Your task to perform on an android device: clear history in the chrome app Image 0: 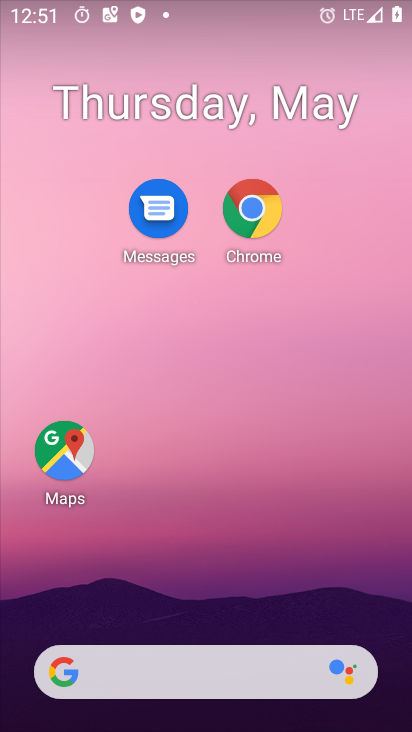
Step 0: drag from (189, 480) to (201, 18)
Your task to perform on an android device: clear history in the chrome app Image 1: 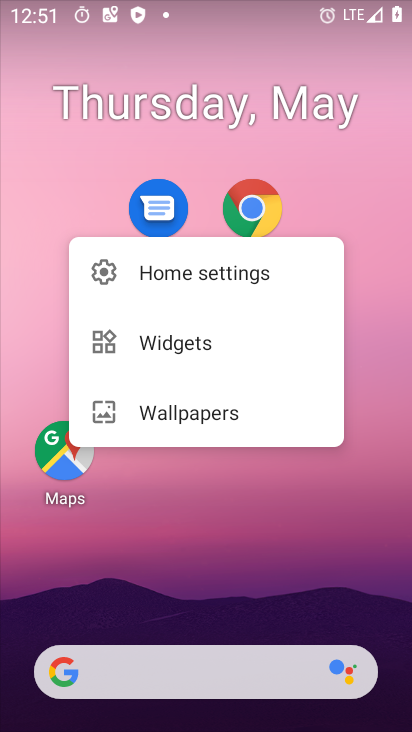
Step 1: click (196, 592)
Your task to perform on an android device: clear history in the chrome app Image 2: 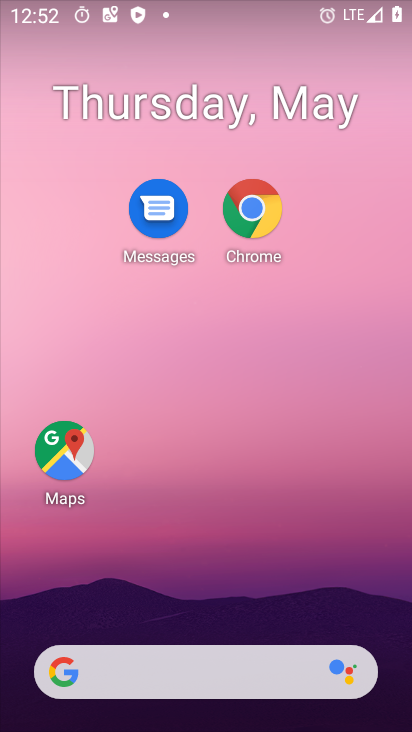
Step 2: click (245, 223)
Your task to perform on an android device: clear history in the chrome app Image 3: 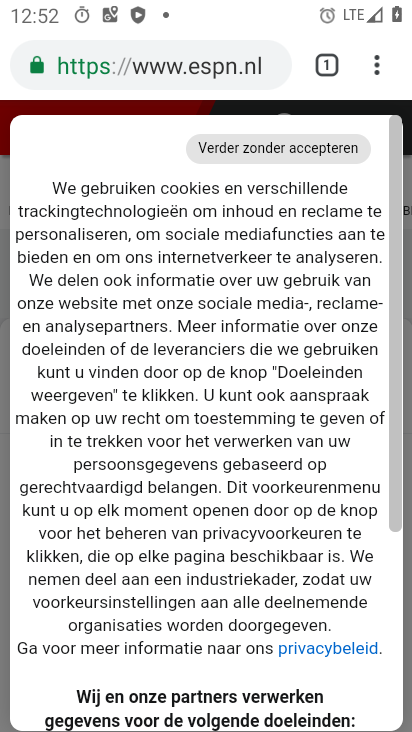
Step 3: click (375, 70)
Your task to perform on an android device: clear history in the chrome app Image 4: 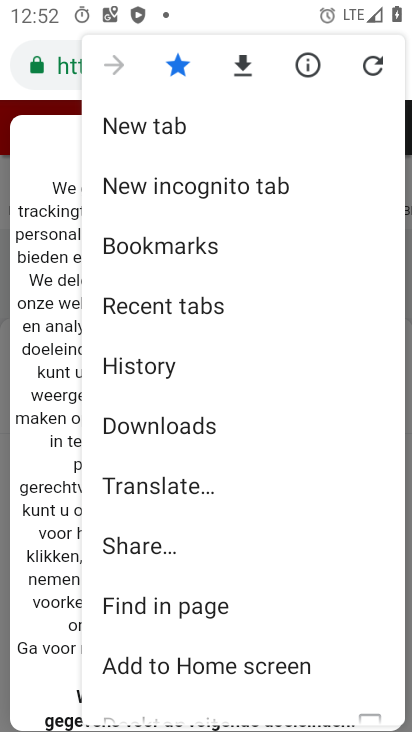
Step 4: drag from (191, 646) to (222, 287)
Your task to perform on an android device: clear history in the chrome app Image 5: 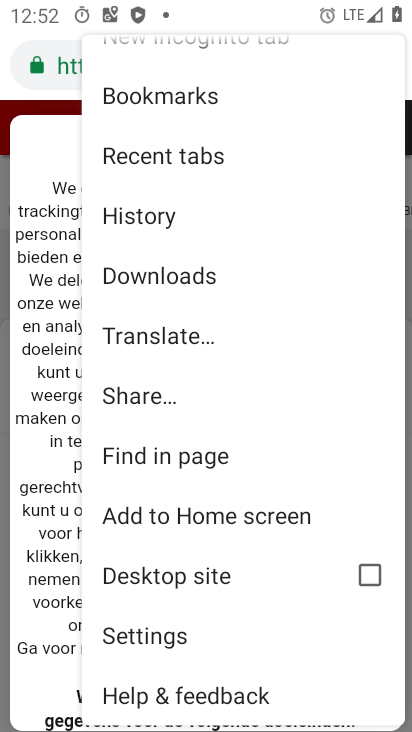
Step 5: click (174, 227)
Your task to perform on an android device: clear history in the chrome app Image 6: 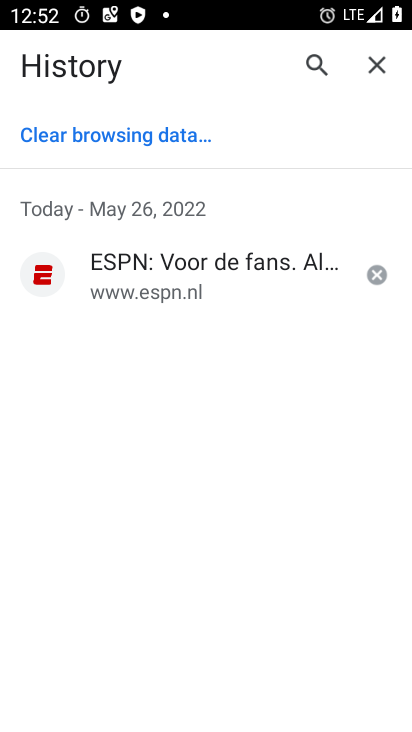
Step 6: click (136, 136)
Your task to perform on an android device: clear history in the chrome app Image 7: 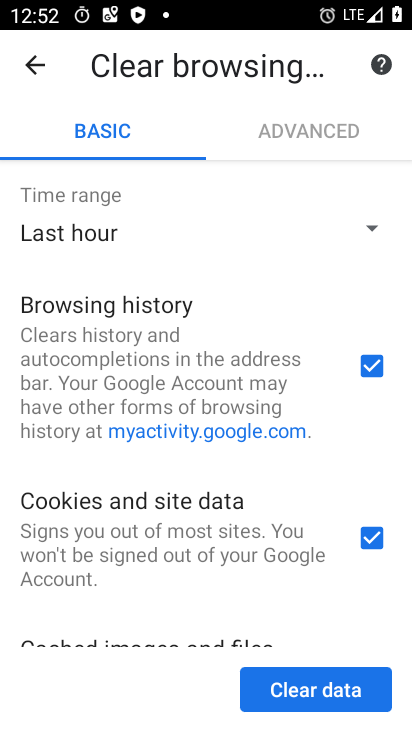
Step 7: click (281, 695)
Your task to perform on an android device: clear history in the chrome app Image 8: 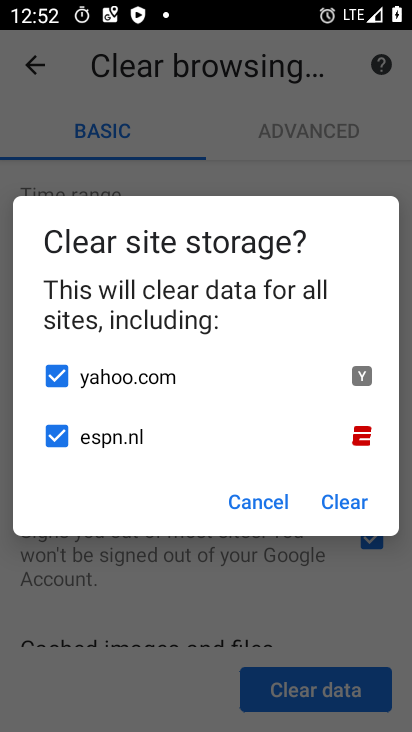
Step 8: click (344, 515)
Your task to perform on an android device: clear history in the chrome app Image 9: 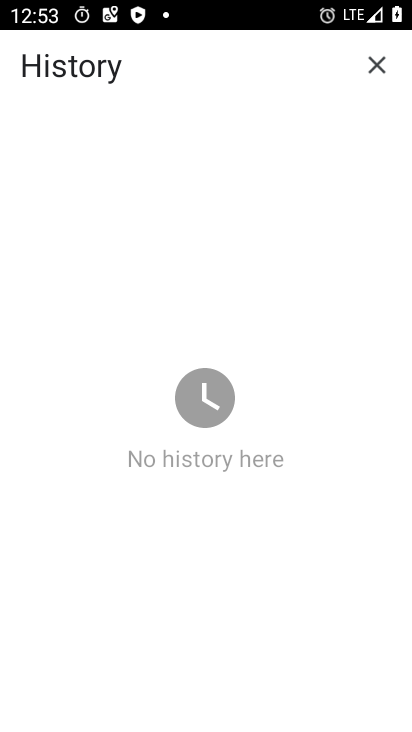
Step 9: task complete